Your task to perform on an android device: toggle improve location accuracy Image 0: 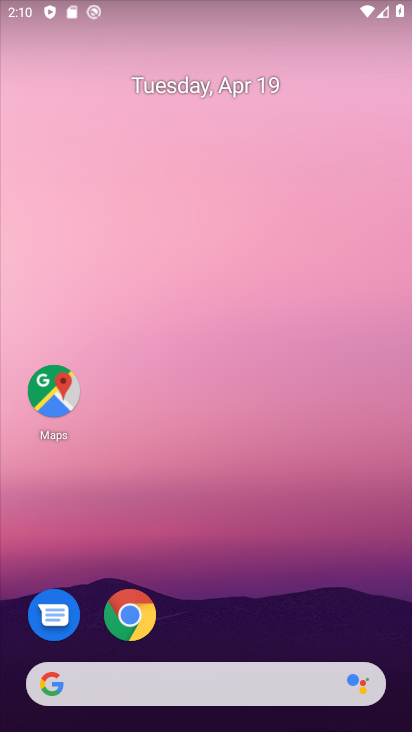
Step 0: drag from (185, 541) to (233, 56)
Your task to perform on an android device: toggle improve location accuracy Image 1: 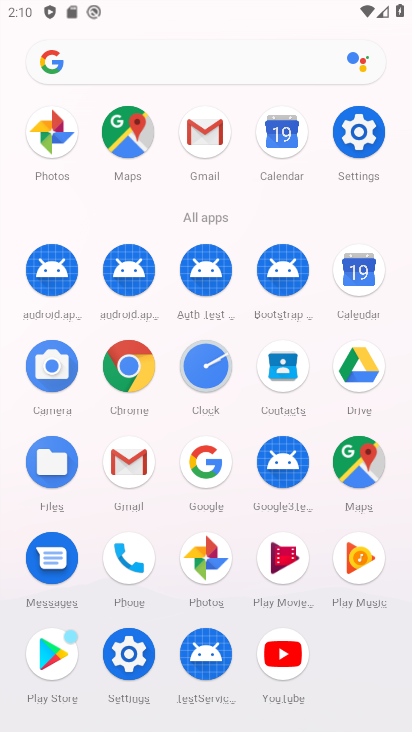
Step 1: click (360, 142)
Your task to perform on an android device: toggle improve location accuracy Image 2: 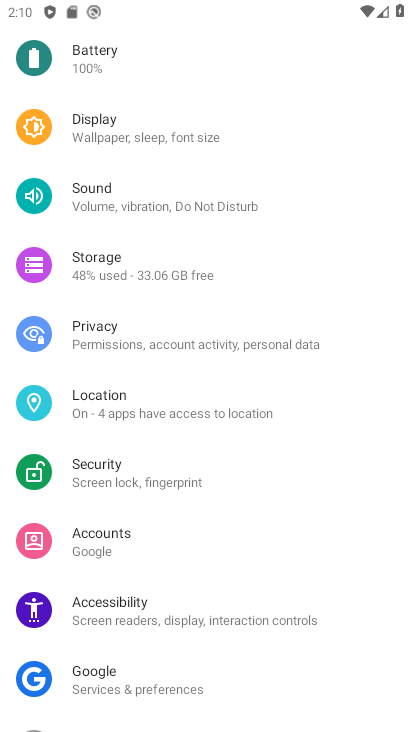
Step 2: click (152, 407)
Your task to perform on an android device: toggle improve location accuracy Image 3: 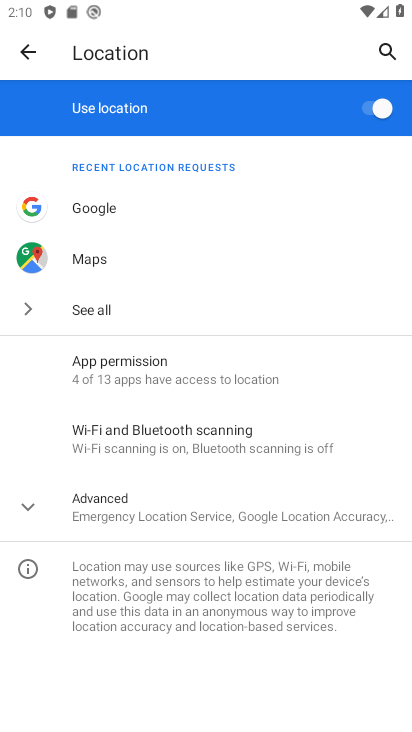
Step 3: click (75, 511)
Your task to perform on an android device: toggle improve location accuracy Image 4: 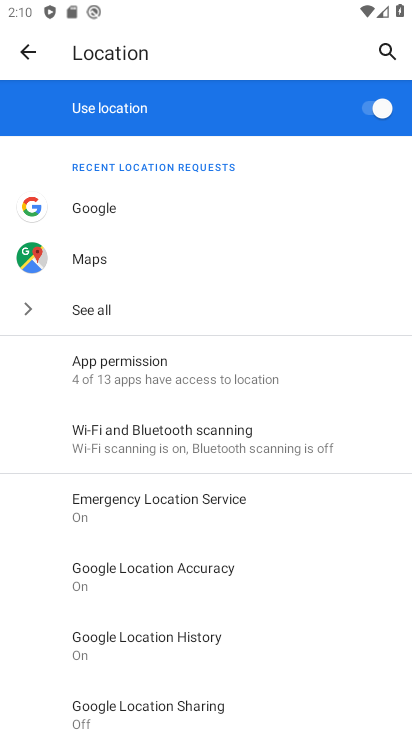
Step 4: click (191, 583)
Your task to perform on an android device: toggle improve location accuracy Image 5: 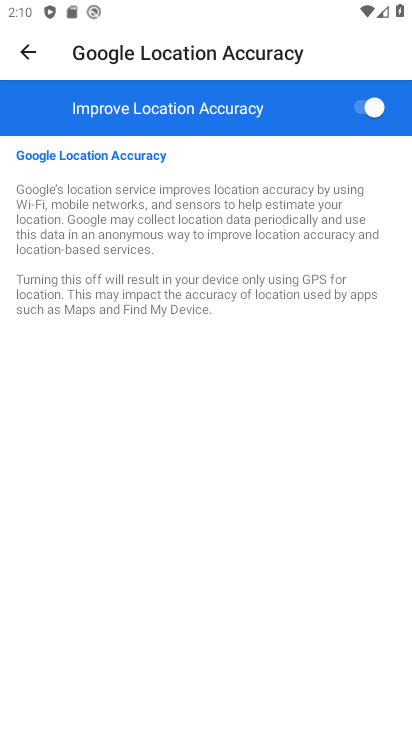
Step 5: click (366, 110)
Your task to perform on an android device: toggle improve location accuracy Image 6: 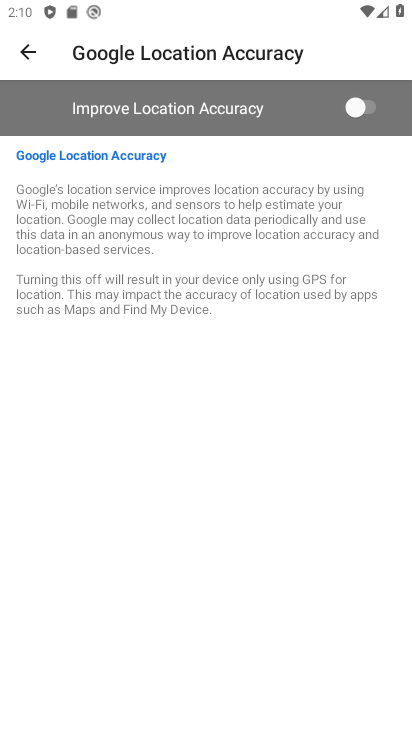
Step 6: click (366, 110)
Your task to perform on an android device: toggle improve location accuracy Image 7: 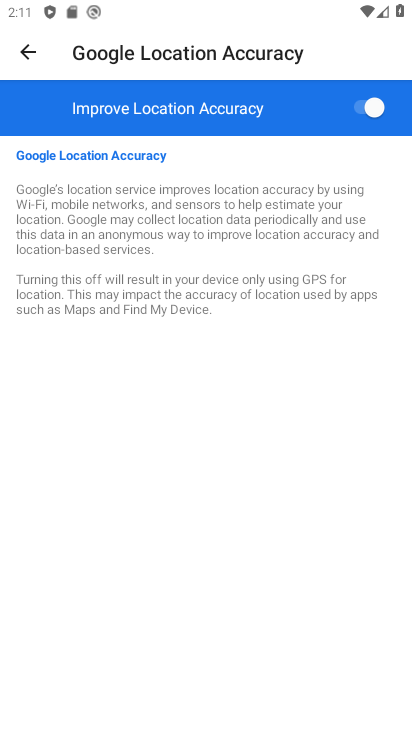
Step 7: task complete